Your task to perform on an android device: Is it going to rain today? Image 0: 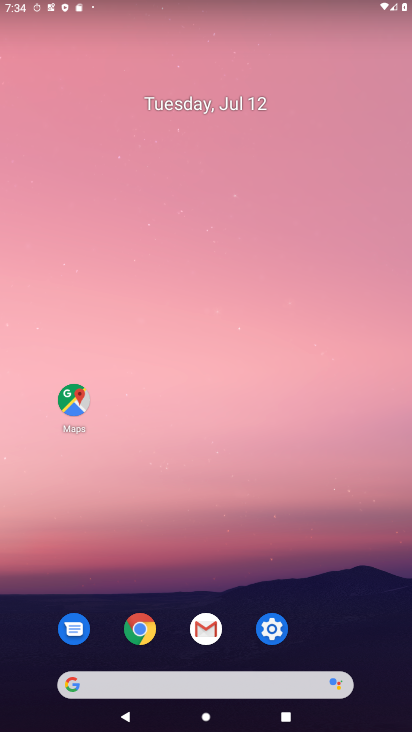
Step 0: click (199, 689)
Your task to perform on an android device: Is it going to rain today? Image 1: 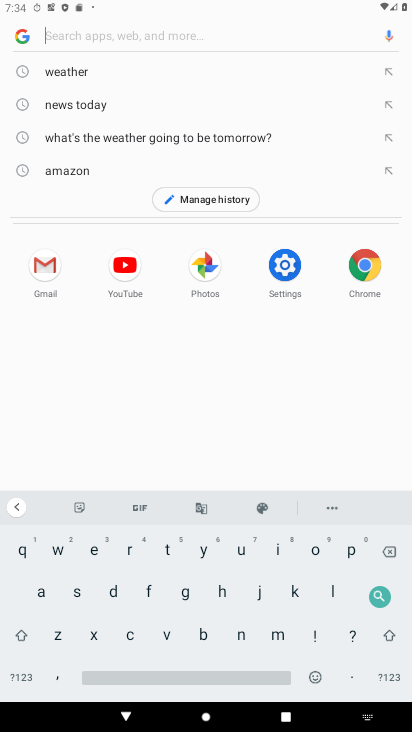
Step 1: click (127, 550)
Your task to perform on an android device: Is it going to rain today? Image 2: 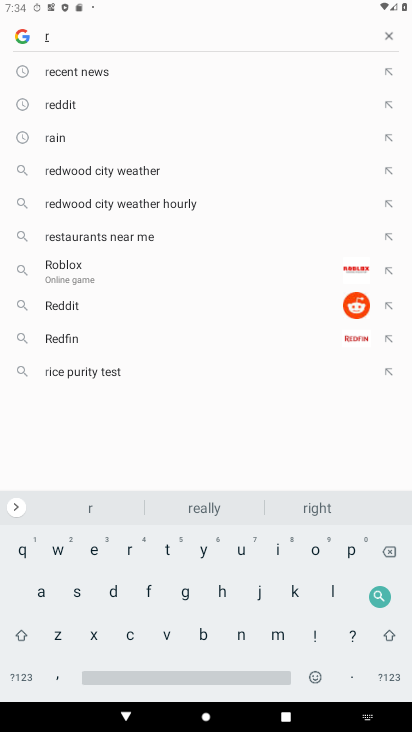
Step 2: click (39, 590)
Your task to perform on an android device: Is it going to rain today? Image 3: 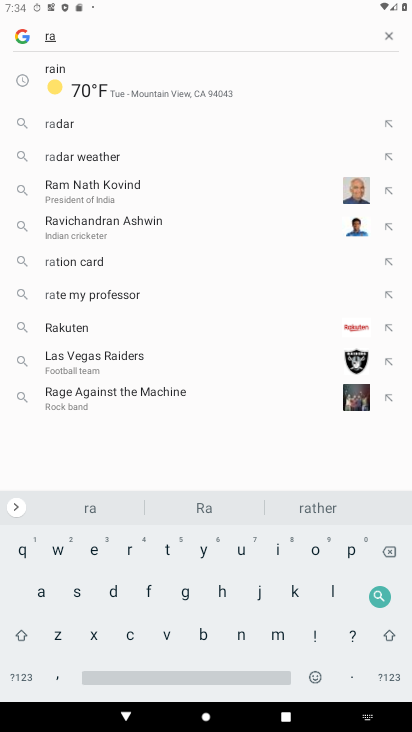
Step 3: click (278, 545)
Your task to perform on an android device: Is it going to rain today? Image 4: 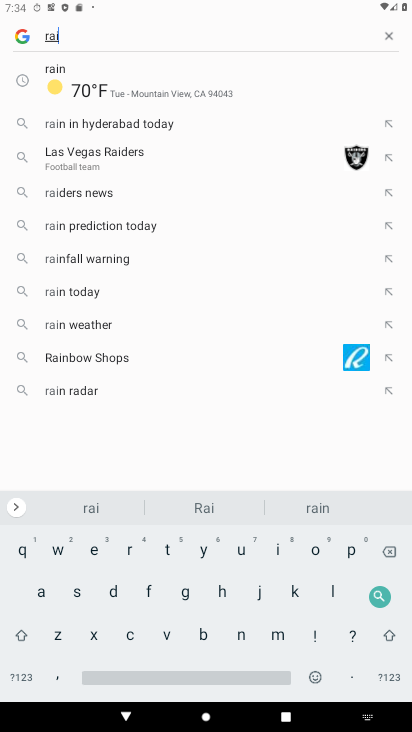
Step 4: click (241, 628)
Your task to perform on an android device: Is it going to rain today? Image 5: 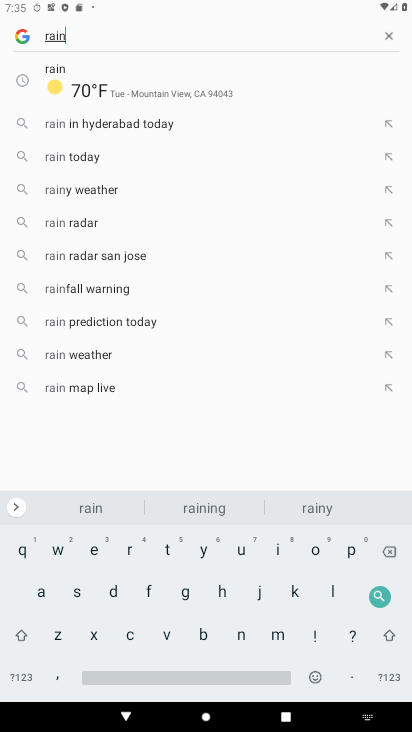
Step 5: click (97, 161)
Your task to perform on an android device: Is it going to rain today? Image 6: 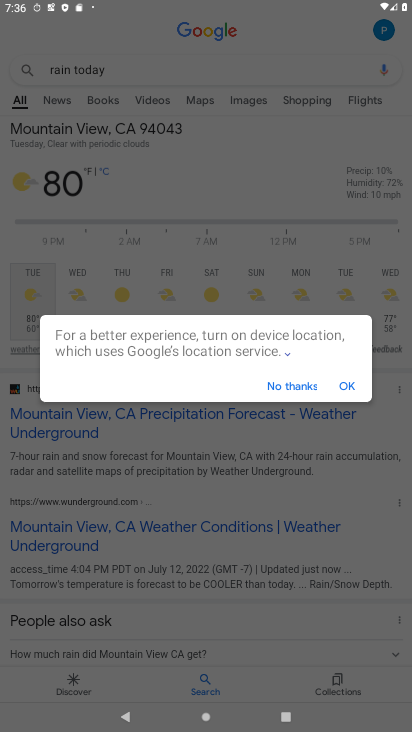
Step 6: click (346, 364)
Your task to perform on an android device: Is it going to rain today? Image 7: 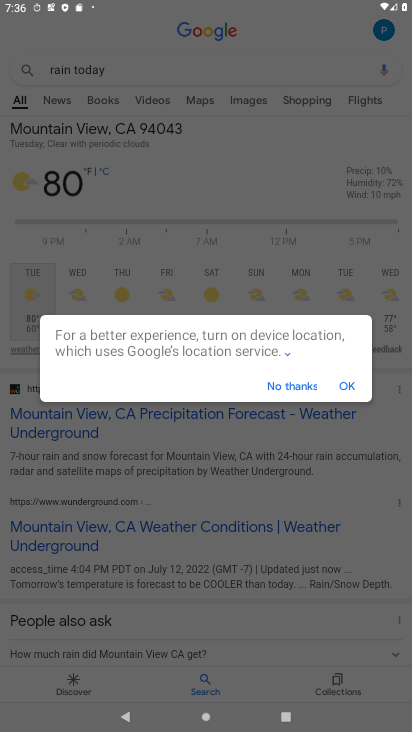
Step 7: click (333, 406)
Your task to perform on an android device: Is it going to rain today? Image 8: 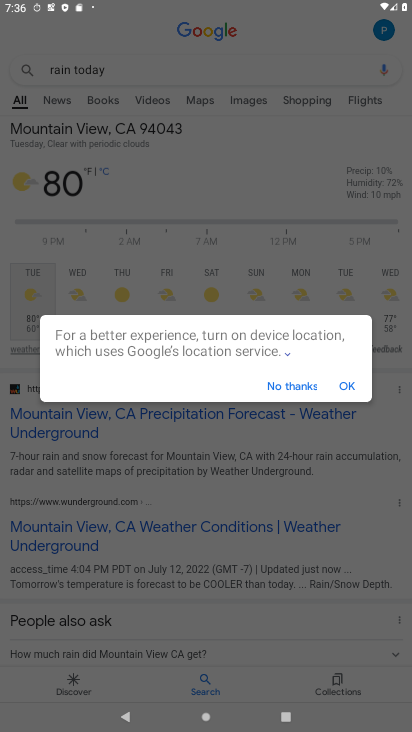
Step 8: click (301, 392)
Your task to perform on an android device: Is it going to rain today? Image 9: 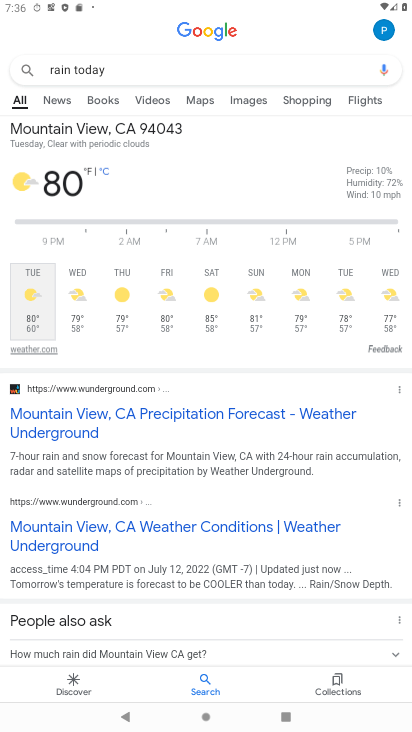
Step 9: task complete